Your task to perform on an android device: Go to Android settings Image 0: 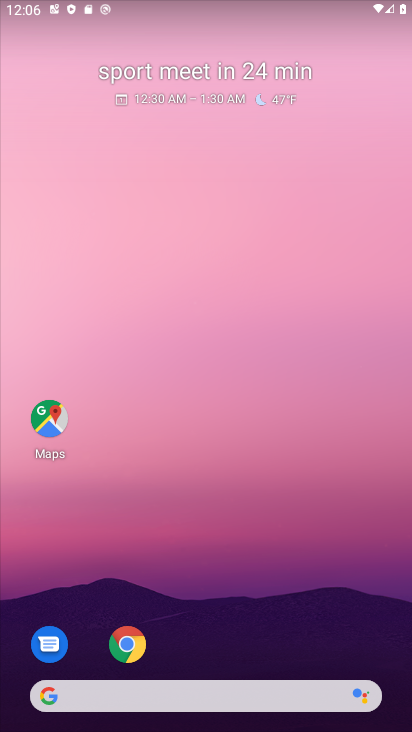
Step 0: drag from (33, 615) to (354, 137)
Your task to perform on an android device: Go to Android settings Image 1: 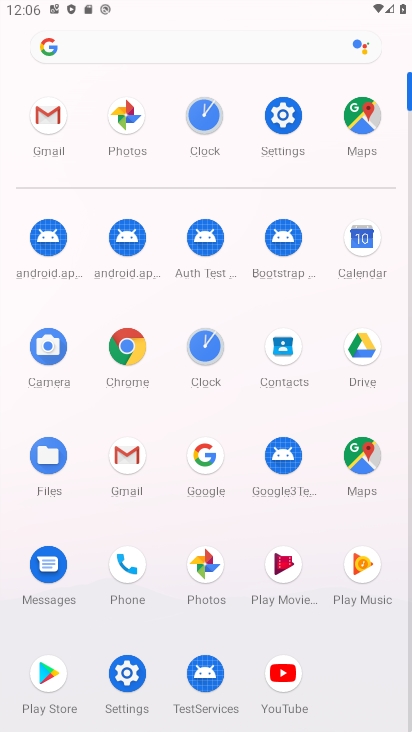
Step 1: click (290, 130)
Your task to perform on an android device: Go to Android settings Image 2: 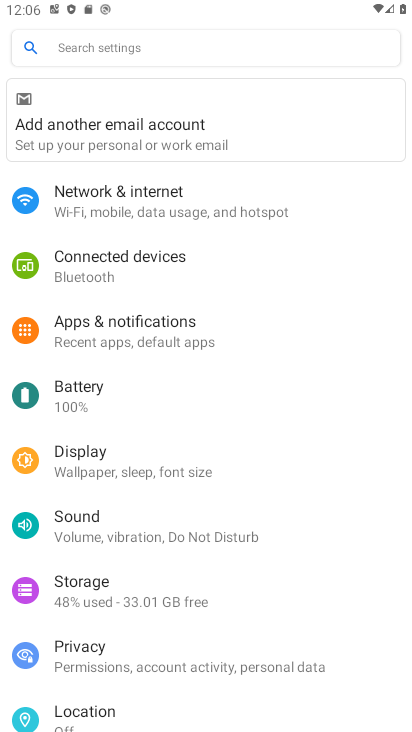
Step 2: drag from (142, 641) to (221, 137)
Your task to perform on an android device: Go to Android settings Image 3: 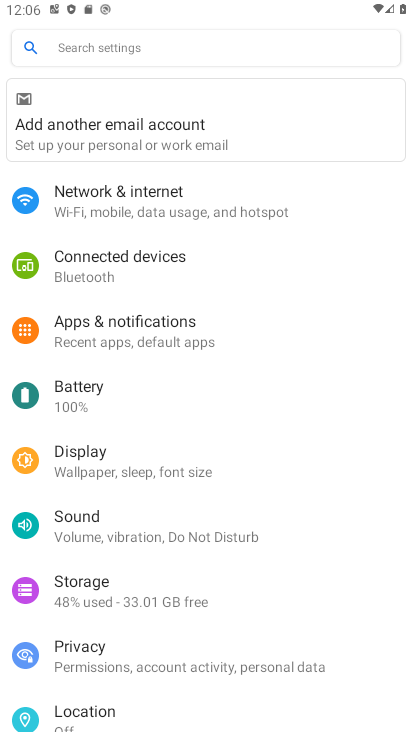
Step 3: click (149, 211)
Your task to perform on an android device: Go to Android settings Image 4: 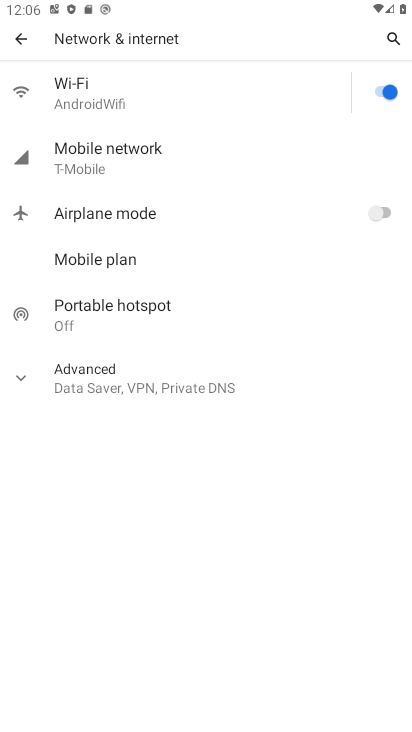
Step 4: press back button
Your task to perform on an android device: Go to Android settings Image 5: 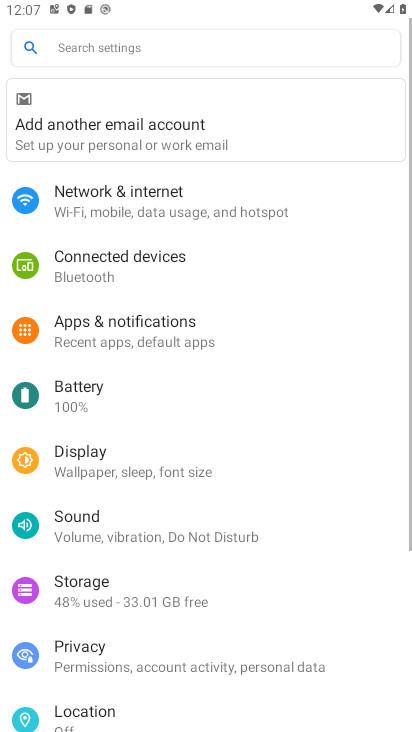
Step 5: drag from (145, 707) to (234, 142)
Your task to perform on an android device: Go to Android settings Image 6: 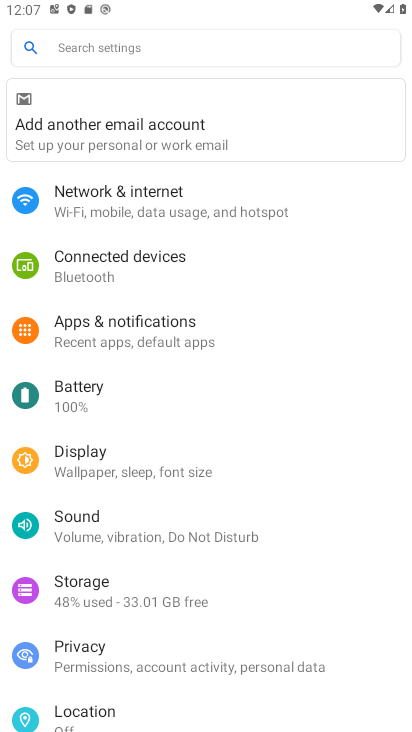
Step 6: drag from (77, 701) to (203, 161)
Your task to perform on an android device: Go to Android settings Image 7: 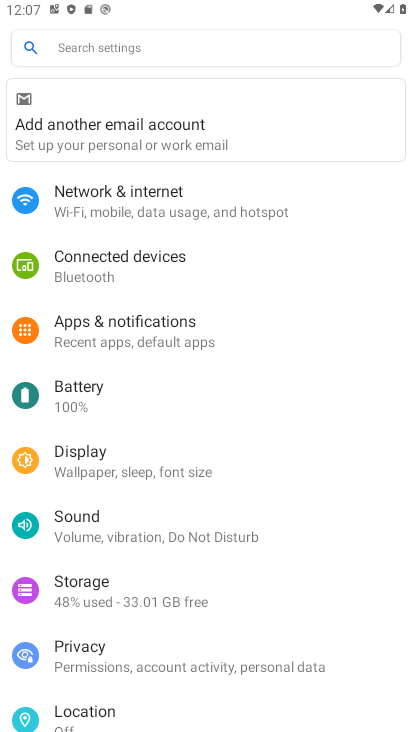
Step 7: drag from (7, 667) to (195, 162)
Your task to perform on an android device: Go to Android settings Image 8: 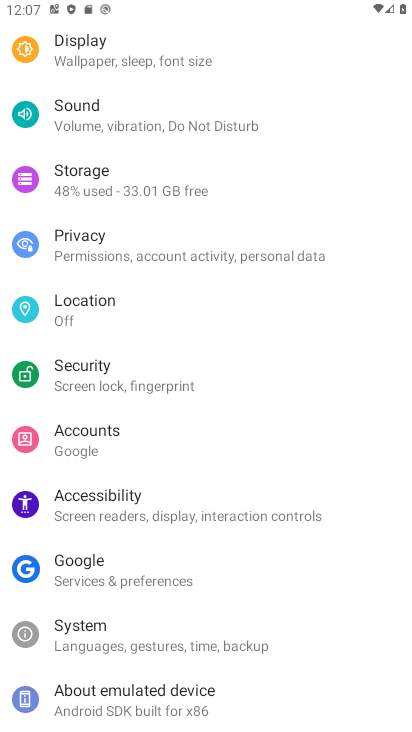
Step 8: click (59, 702)
Your task to perform on an android device: Go to Android settings Image 9: 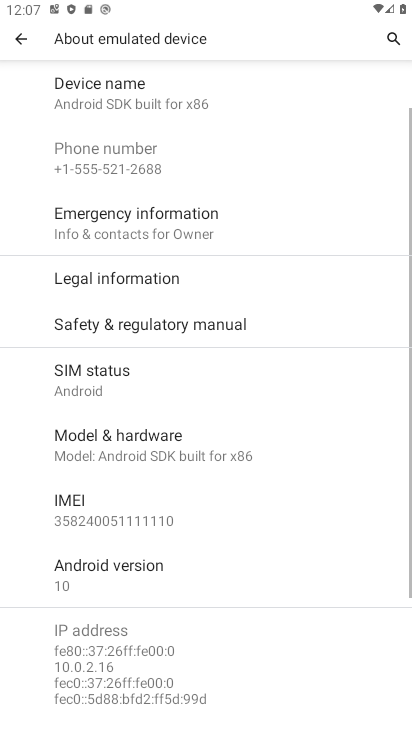
Step 9: task complete